Your task to perform on an android device: Search for "apple airpods" on ebay.com, select the first entry, and add it to the cart. Image 0: 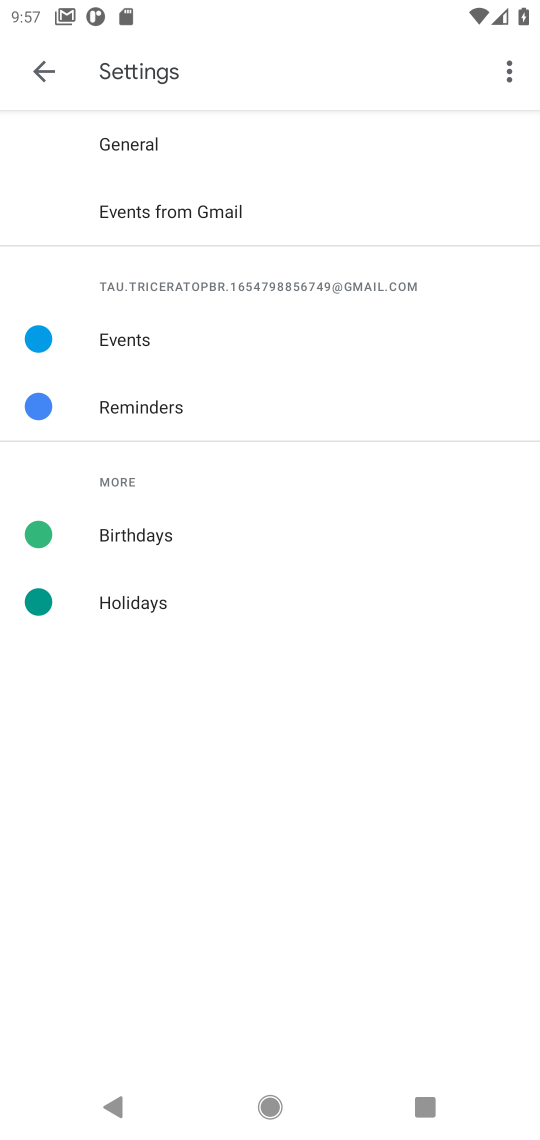
Step 0: press home button
Your task to perform on an android device: Search for "apple airpods" on ebay.com, select the first entry, and add it to the cart. Image 1: 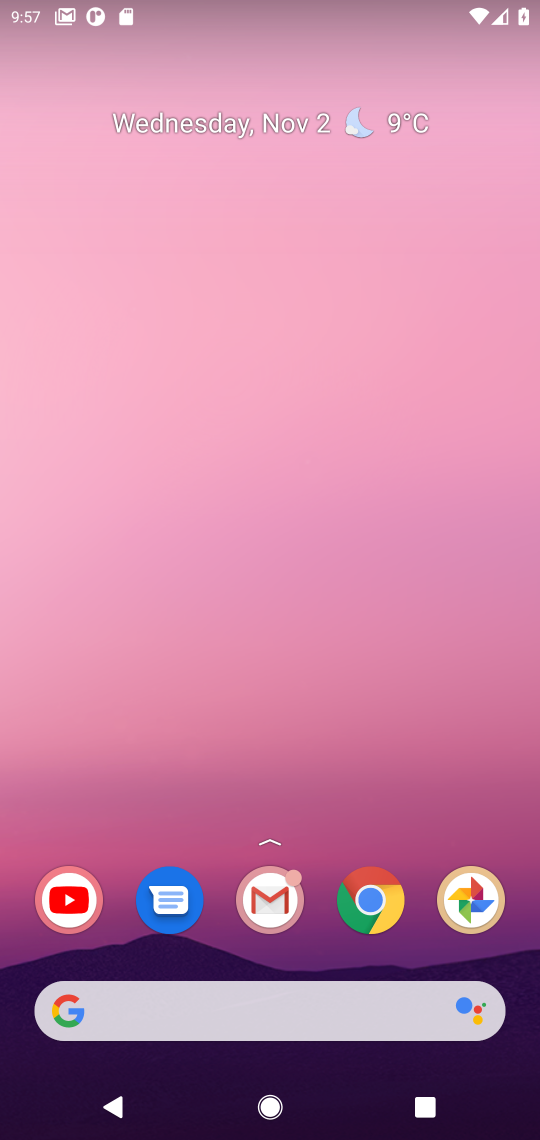
Step 1: click (382, 914)
Your task to perform on an android device: Search for "apple airpods" on ebay.com, select the first entry, and add it to the cart. Image 2: 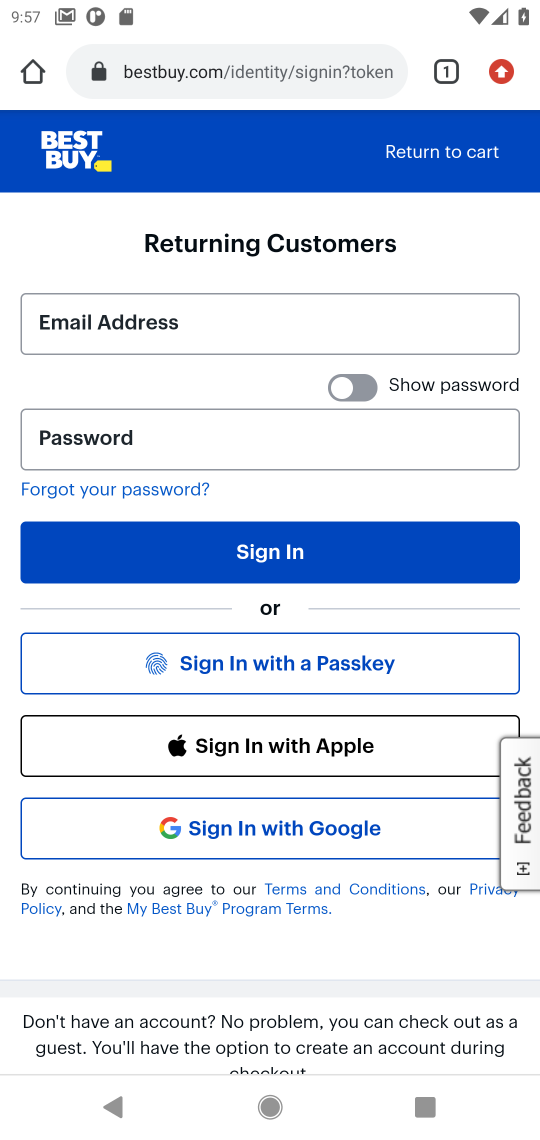
Step 2: click (166, 71)
Your task to perform on an android device: Search for "apple airpods" on ebay.com, select the first entry, and add it to the cart. Image 3: 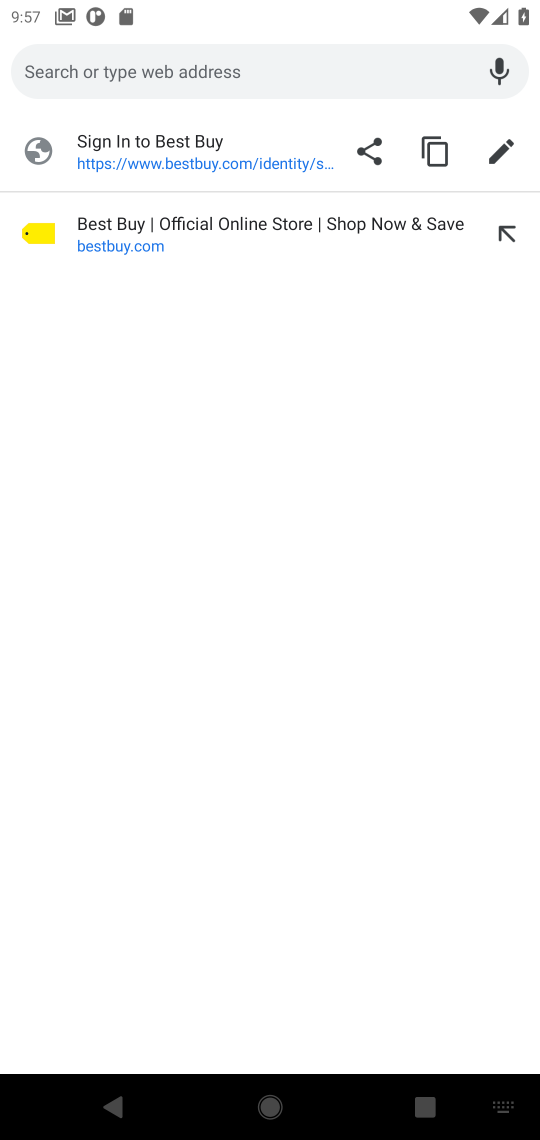
Step 3: type "ebay"
Your task to perform on an android device: Search for "apple airpods" on ebay.com, select the first entry, and add it to the cart. Image 4: 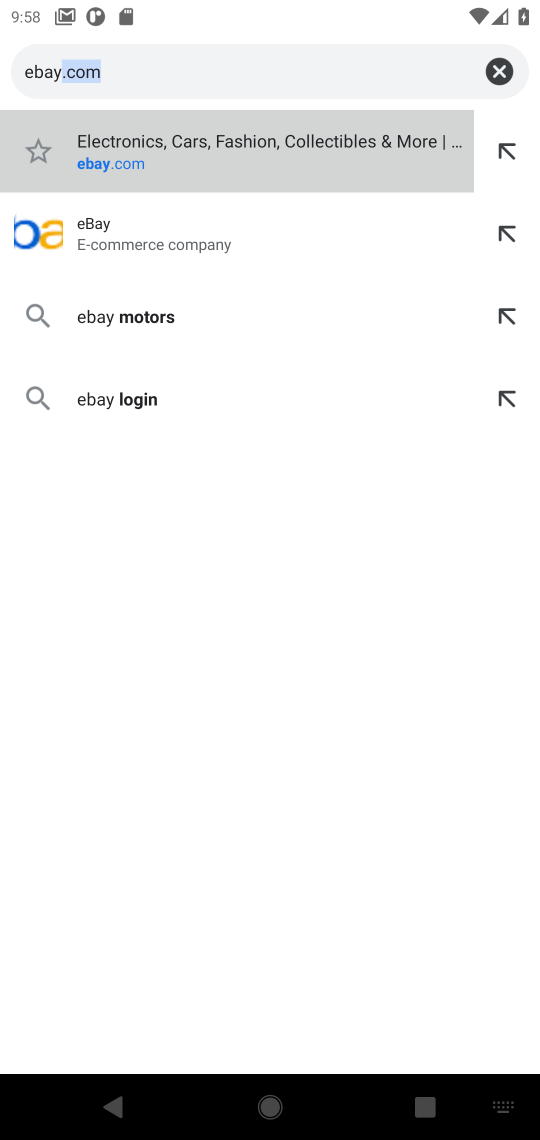
Step 4: click (172, 216)
Your task to perform on an android device: Search for "apple airpods" on ebay.com, select the first entry, and add it to the cart. Image 5: 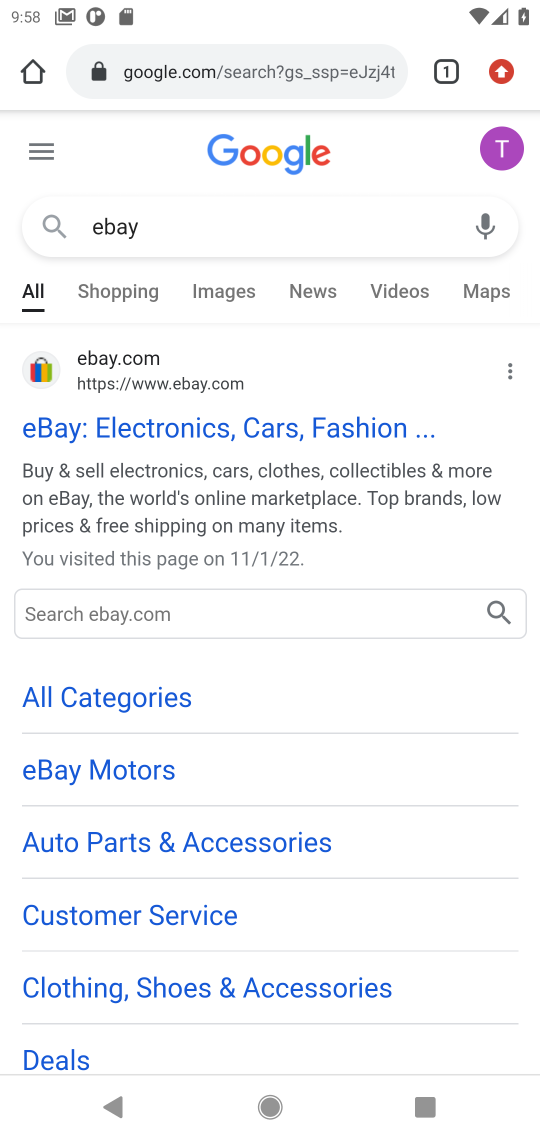
Step 5: click (187, 444)
Your task to perform on an android device: Search for "apple airpods" on ebay.com, select the first entry, and add it to the cart. Image 6: 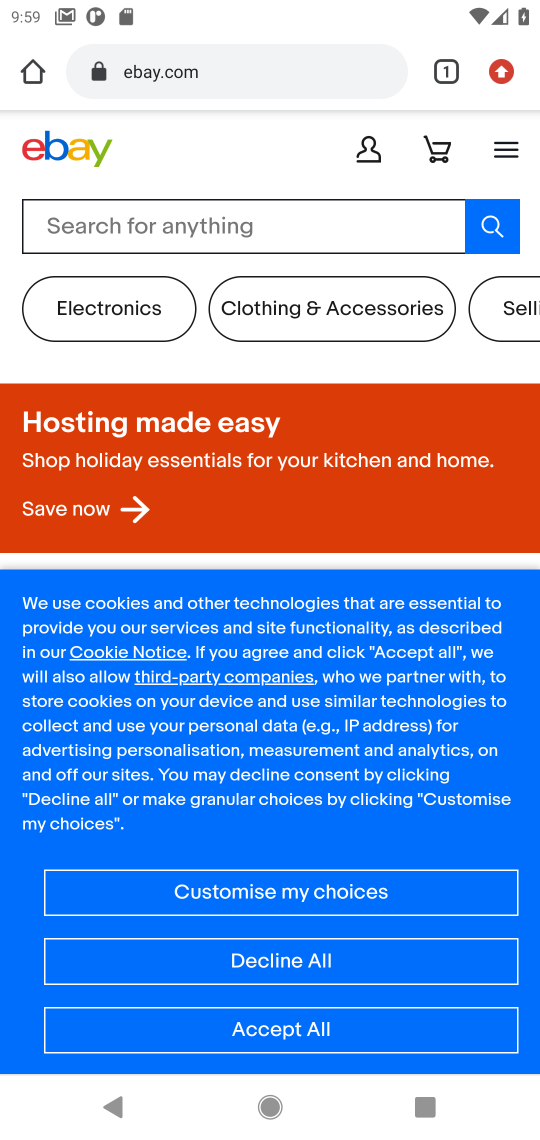
Step 6: click (141, 237)
Your task to perform on an android device: Search for "apple airpods" on ebay.com, select the first entry, and add it to the cart. Image 7: 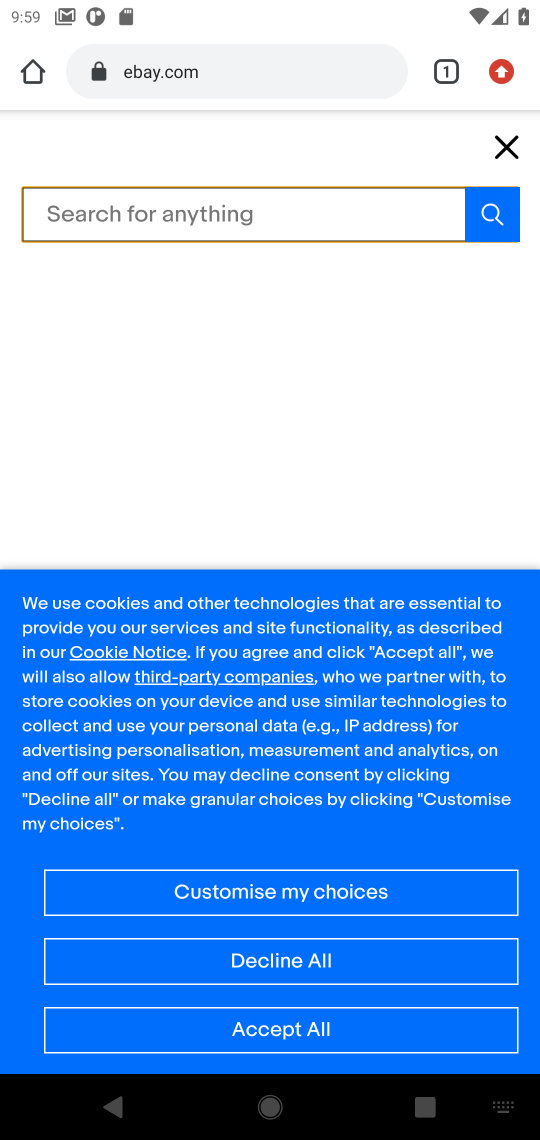
Step 7: type "apple airpods"
Your task to perform on an android device: Search for "apple airpods" on ebay.com, select the first entry, and add it to the cart. Image 8: 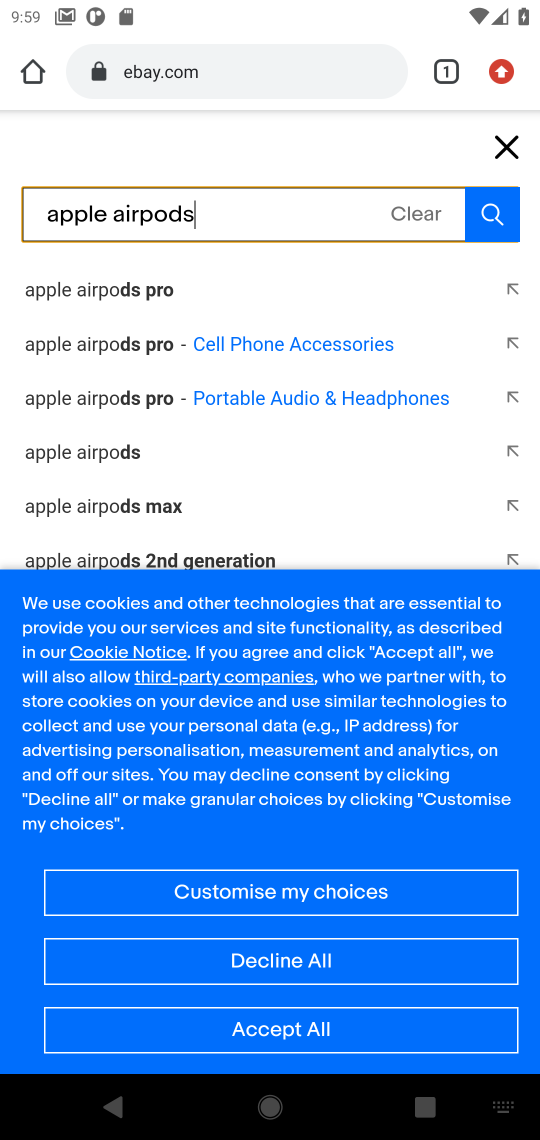
Step 8: click (484, 220)
Your task to perform on an android device: Search for "apple airpods" on ebay.com, select the first entry, and add it to the cart. Image 9: 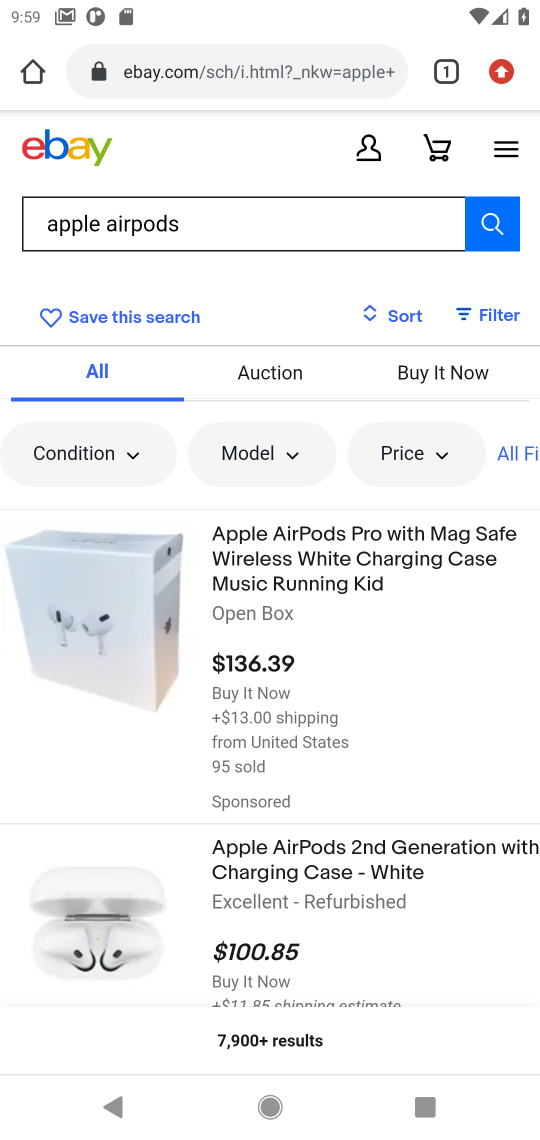
Step 9: click (256, 570)
Your task to perform on an android device: Search for "apple airpods" on ebay.com, select the first entry, and add it to the cart. Image 10: 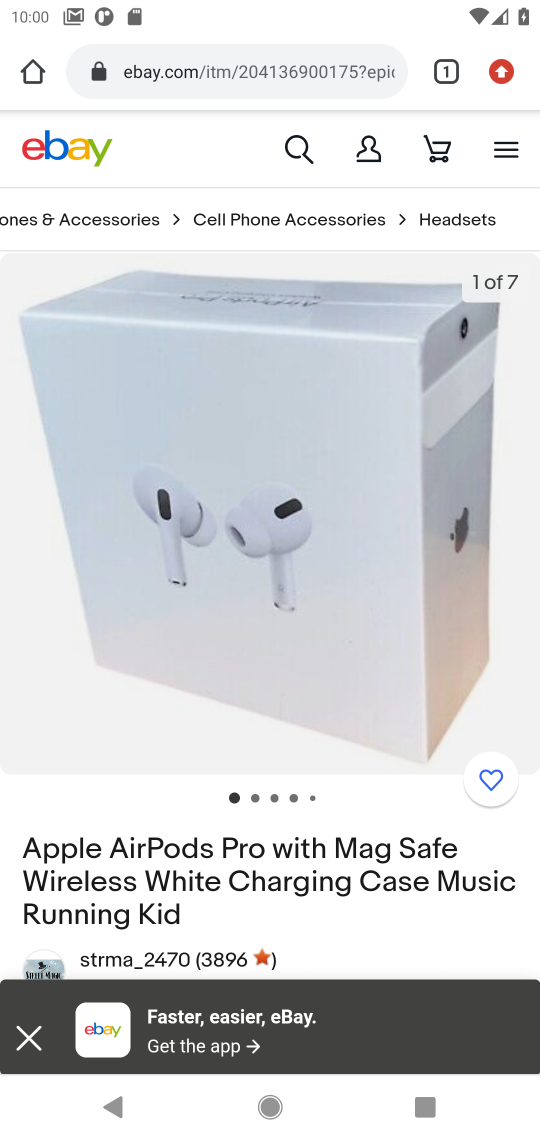
Step 10: drag from (273, 912) to (380, 265)
Your task to perform on an android device: Search for "apple airpods" on ebay.com, select the first entry, and add it to the cart. Image 11: 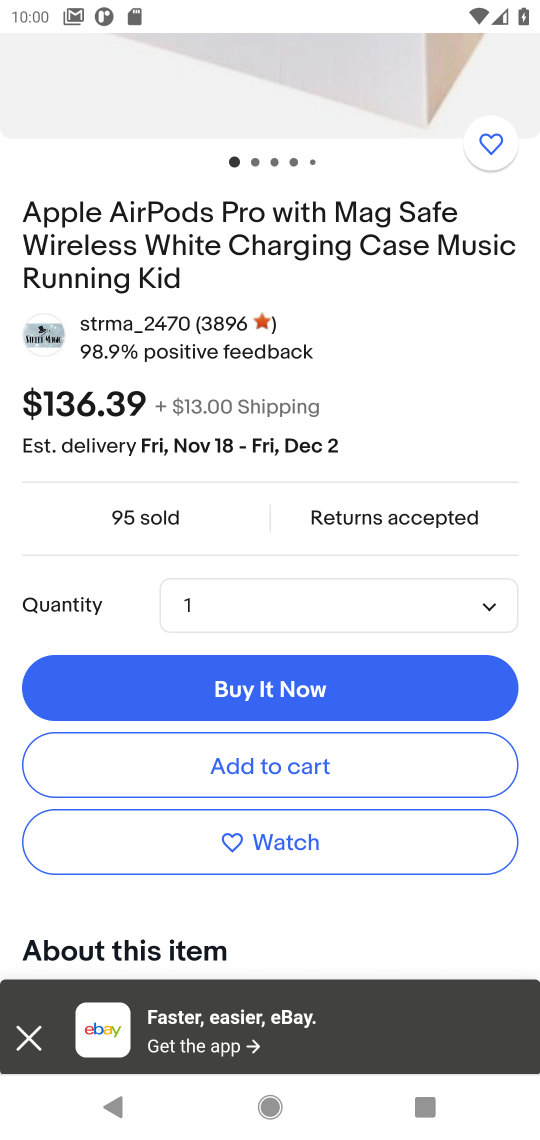
Step 11: click (208, 756)
Your task to perform on an android device: Search for "apple airpods" on ebay.com, select the first entry, and add it to the cart. Image 12: 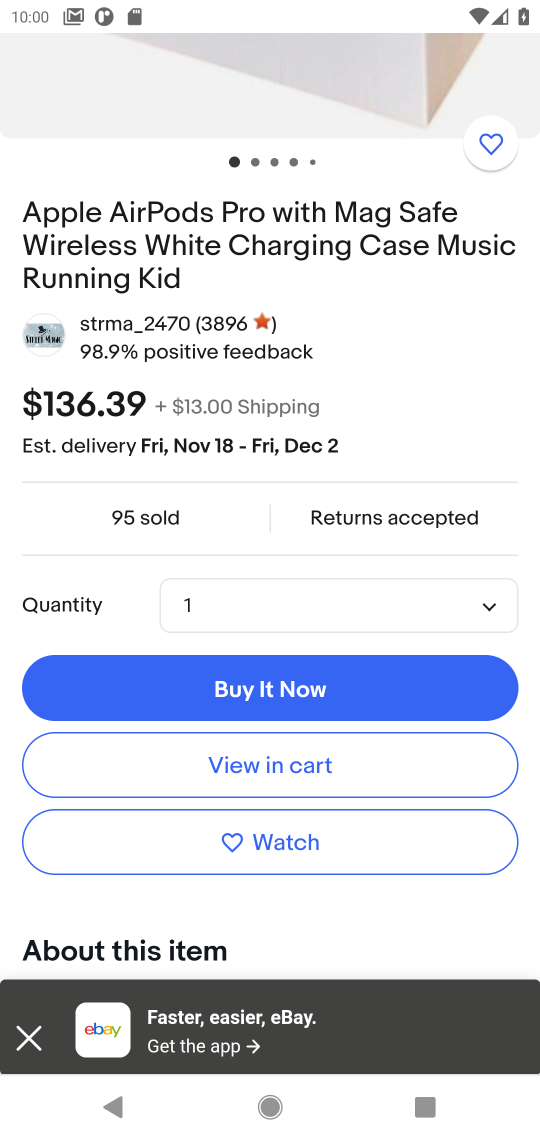
Step 12: task complete